Your task to perform on an android device: turn off location history Image 0: 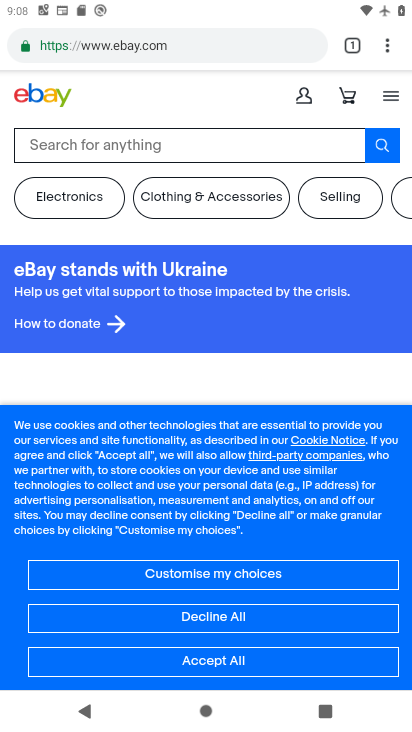
Step 0: press home button
Your task to perform on an android device: turn off location history Image 1: 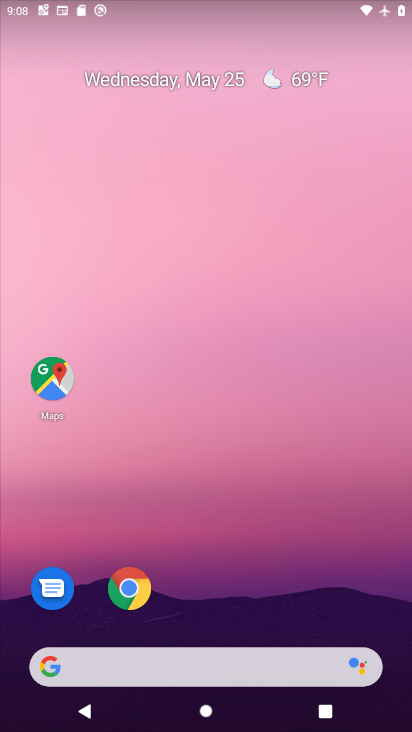
Step 1: drag from (367, 610) to (374, 234)
Your task to perform on an android device: turn off location history Image 2: 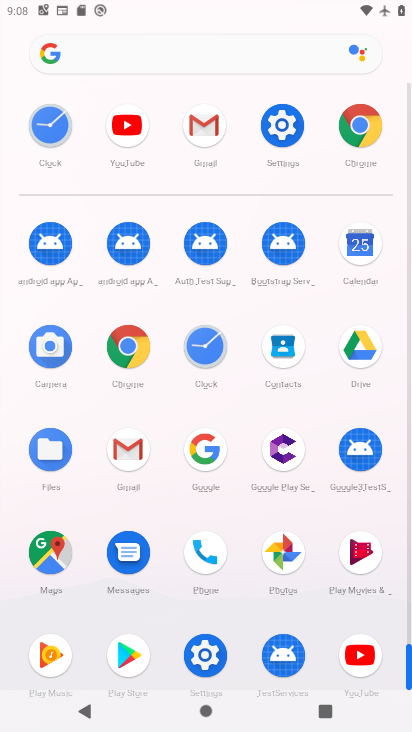
Step 2: click (290, 136)
Your task to perform on an android device: turn off location history Image 3: 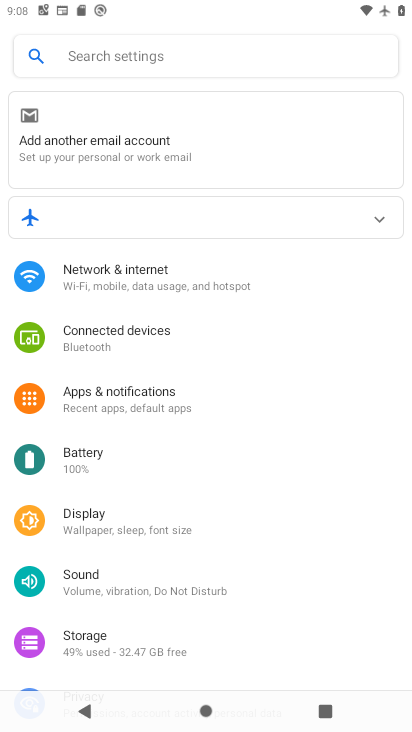
Step 3: drag from (321, 480) to (341, 393)
Your task to perform on an android device: turn off location history Image 4: 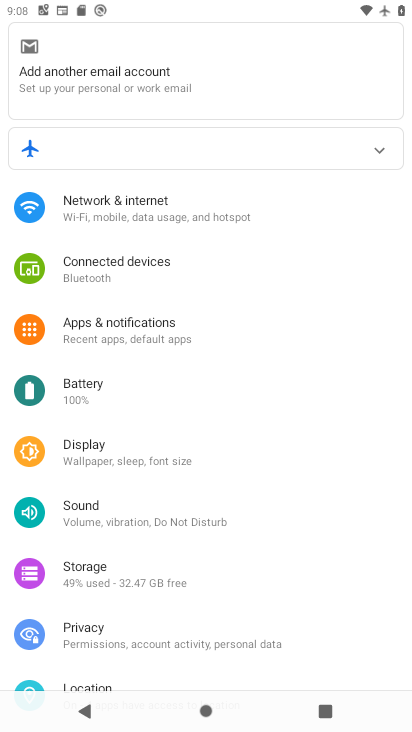
Step 4: drag from (331, 503) to (339, 407)
Your task to perform on an android device: turn off location history Image 5: 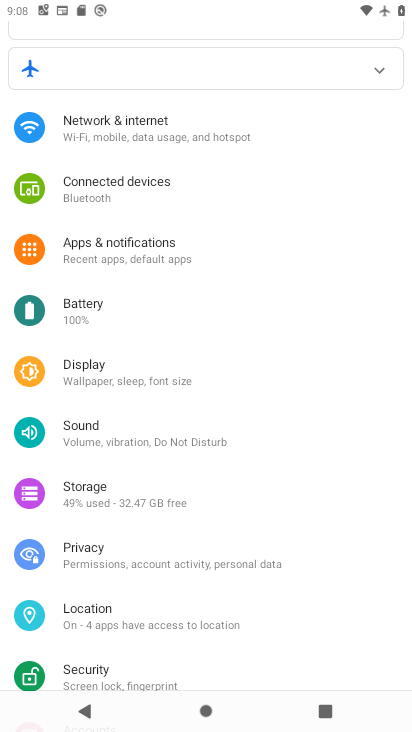
Step 5: drag from (321, 525) to (328, 434)
Your task to perform on an android device: turn off location history Image 6: 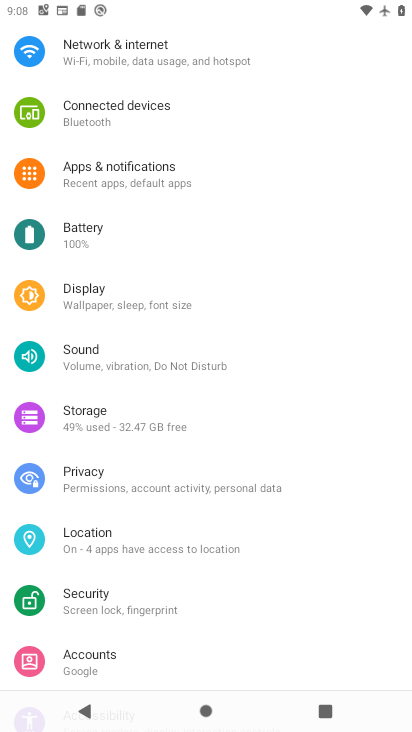
Step 6: drag from (334, 531) to (337, 437)
Your task to perform on an android device: turn off location history Image 7: 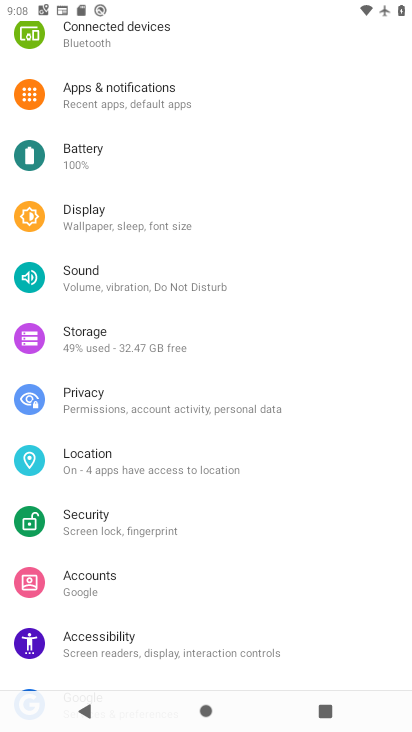
Step 7: drag from (302, 541) to (305, 465)
Your task to perform on an android device: turn off location history Image 8: 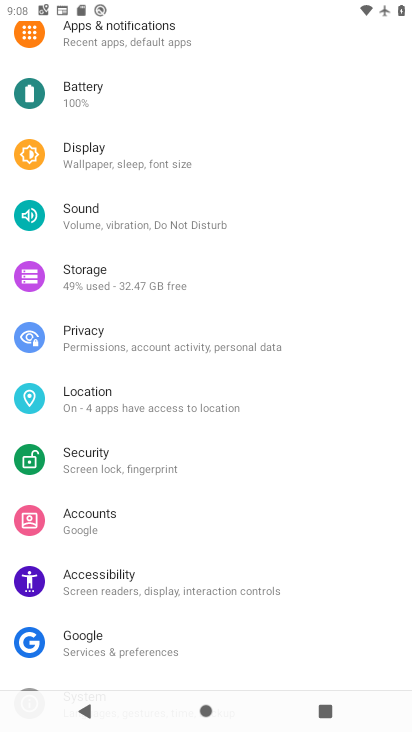
Step 8: drag from (316, 572) to (320, 480)
Your task to perform on an android device: turn off location history Image 9: 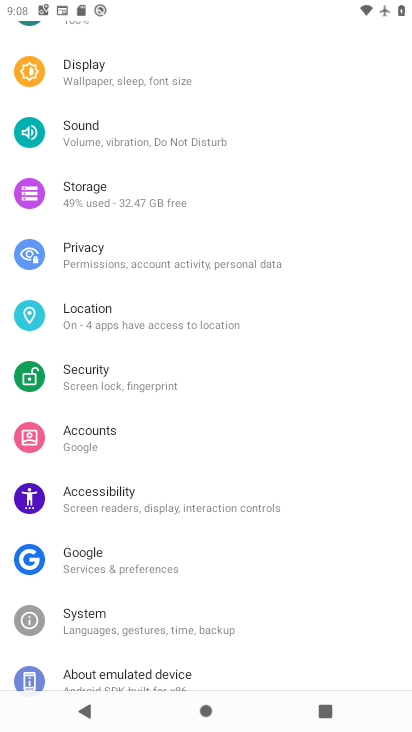
Step 9: drag from (314, 577) to (323, 472)
Your task to perform on an android device: turn off location history Image 10: 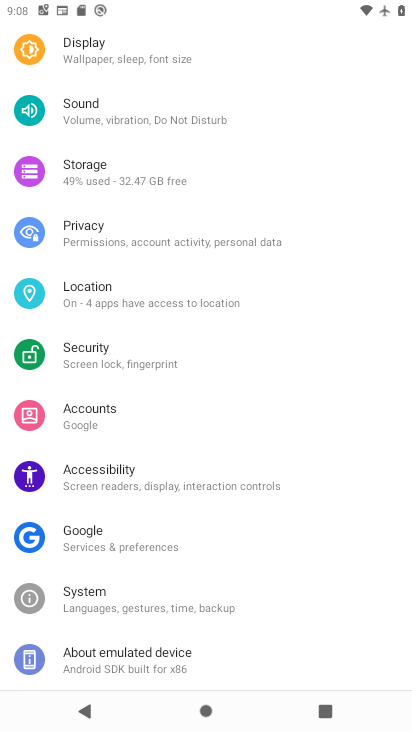
Step 10: drag from (295, 334) to (303, 420)
Your task to perform on an android device: turn off location history Image 11: 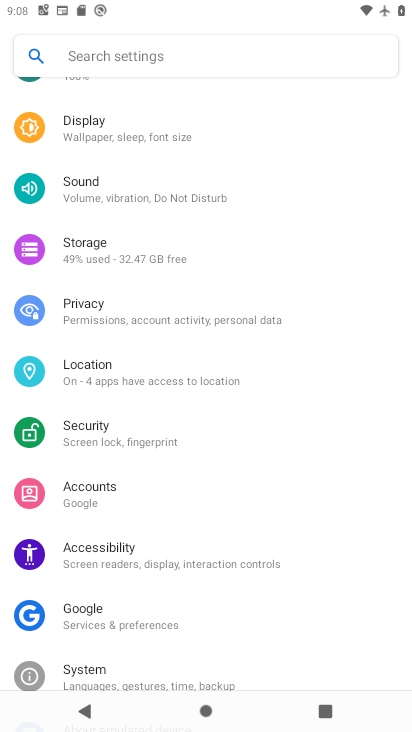
Step 11: drag from (302, 343) to (295, 459)
Your task to perform on an android device: turn off location history Image 12: 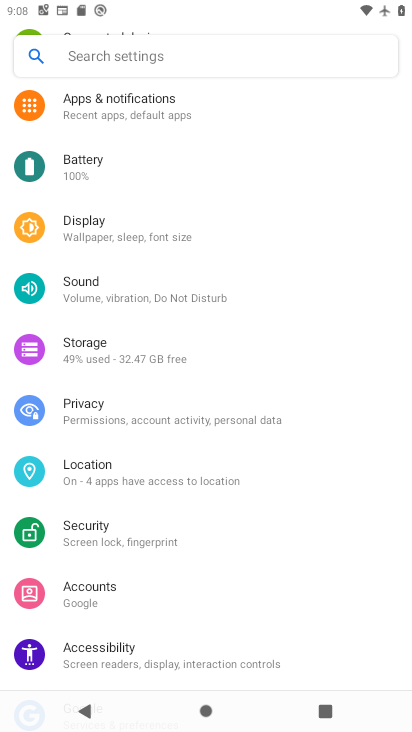
Step 12: drag from (301, 321) to (310, 529)
Your task to perform on an android device: turn off location history Image 13: 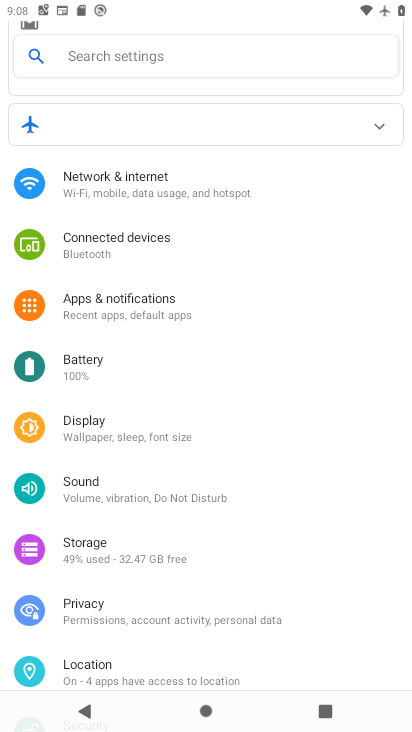
Step 13: drag from (313, 538) to (325, 436)
Your task to perform on an android device: turn off location history Image 14: 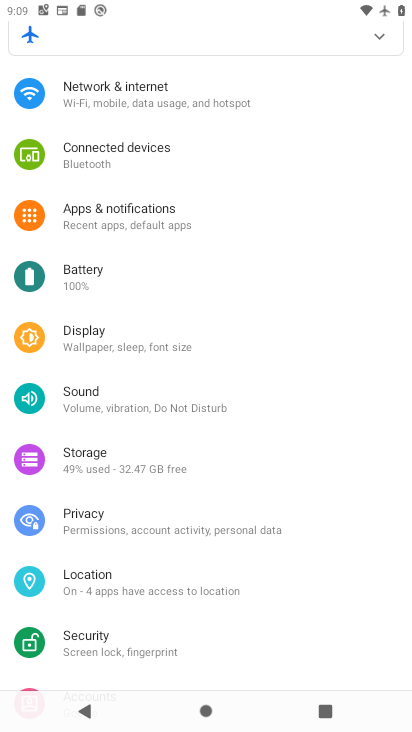
Step 14: click (168, 590)
Your task to perform on an android device: turn off location history Image 15: 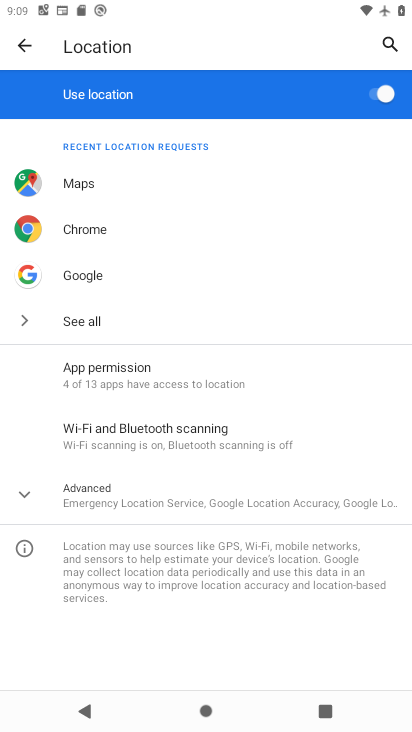
Step 15: click (380, 98)
Your task to perform on an android device: turn off location history Image 16: 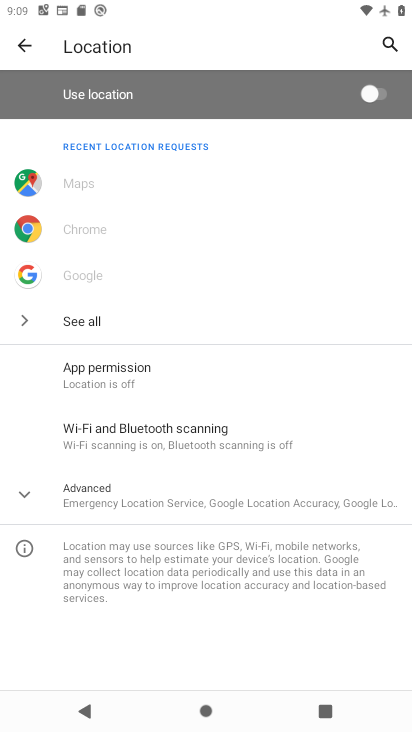
Step 16: task complete